Your task to perform on an android device: Go to calendar. Show me events next week Image 0: 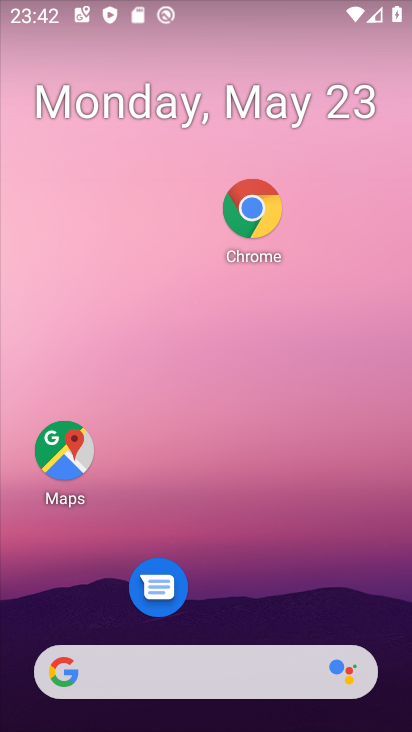
Step 0: click (294, 503)
Your task to perform on an android device: Go to calendar. Show me events next week Image 1: 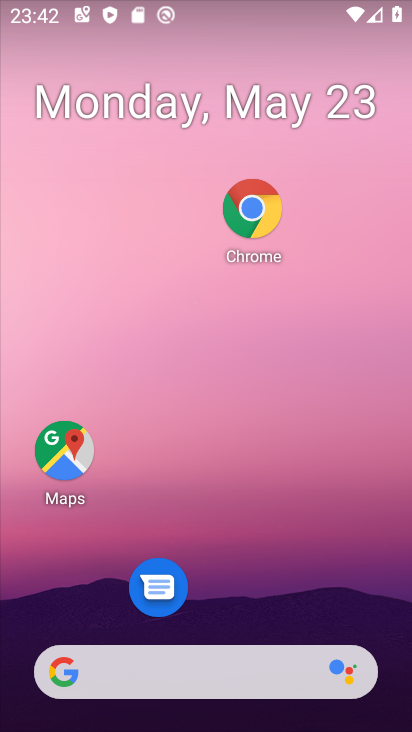
Step 1: drag from (271, 703) to (199, 166)
Your task to perform on an android device: Go to calendar. Show me events next week Image 2: 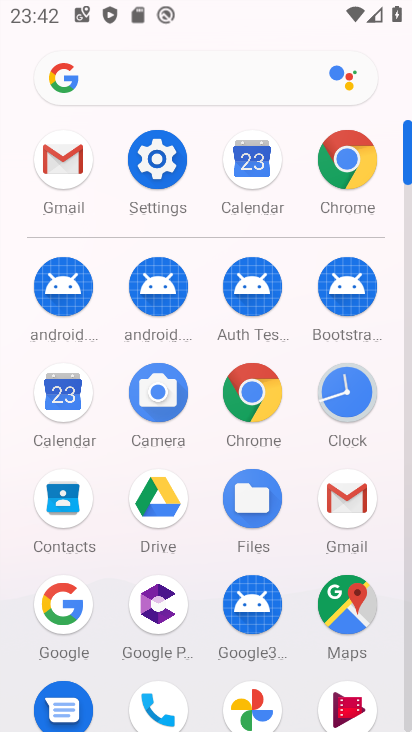
Step 2: click (42, 396)
Your task to perform on an android device: Go to calendar. Show me events next week Image 3: 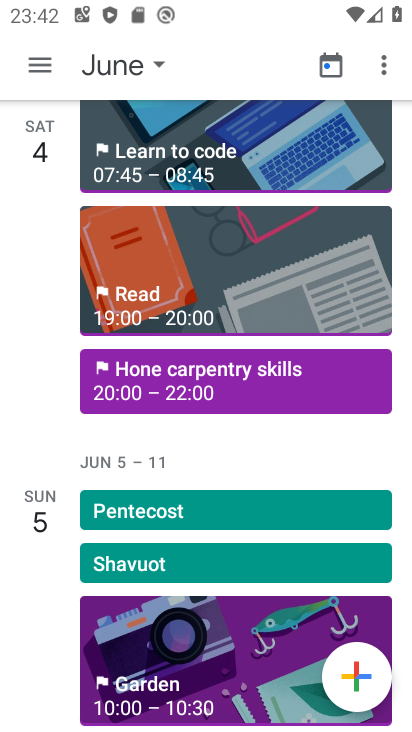
Step 3: drag from (138, 154) to (138, 617)
Your task to perform on an android device: Go to calendar. Show me events next week Image 4: 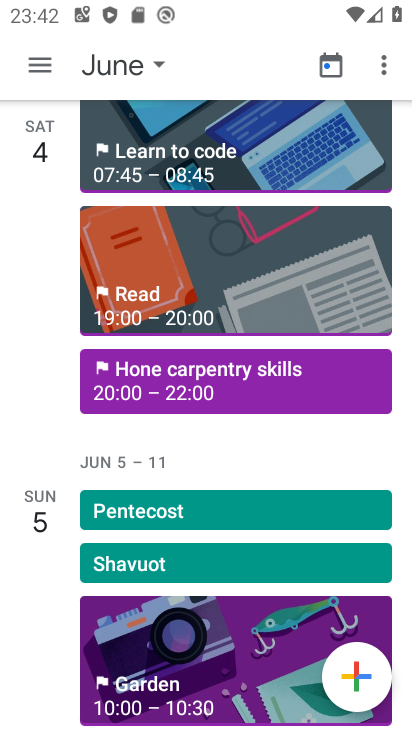
Step 4: click (162, 60)
Your task to perform on an android device: Go to calendar. Show me events next week Image 5: 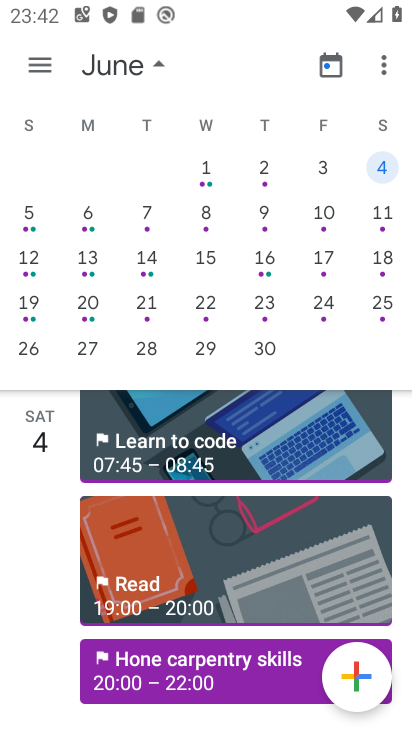
Step 5: drag from (383, 263) to (381, 324)
Your task to perform on an android device: Go to calendar. Show me events next week Image 6: 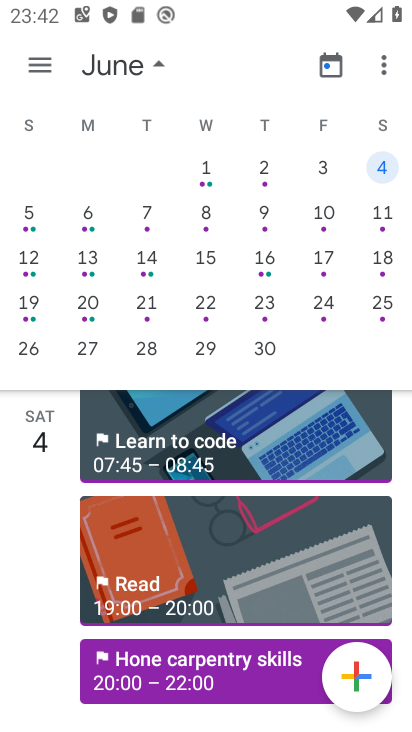
Step 6: drag from (151, 251) to (381, 384)
Your task to perform on an android device: Go to calendar. Show me events next week Image 7: 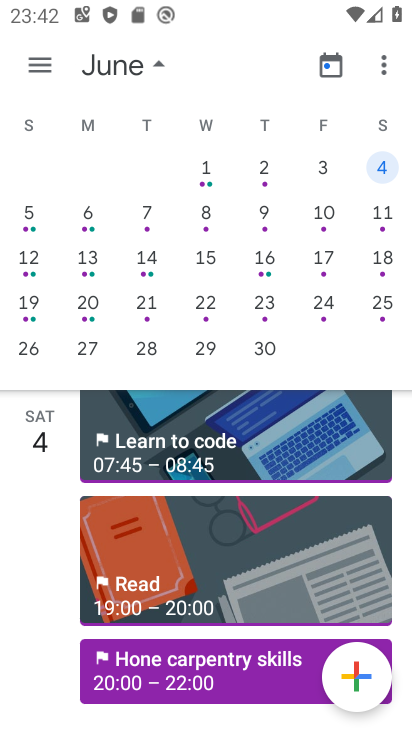
Step 7: drag from (240, 267) to (382, 213)
Your task to perform on an android device: Go to calendar. Show me events next week Image 8: 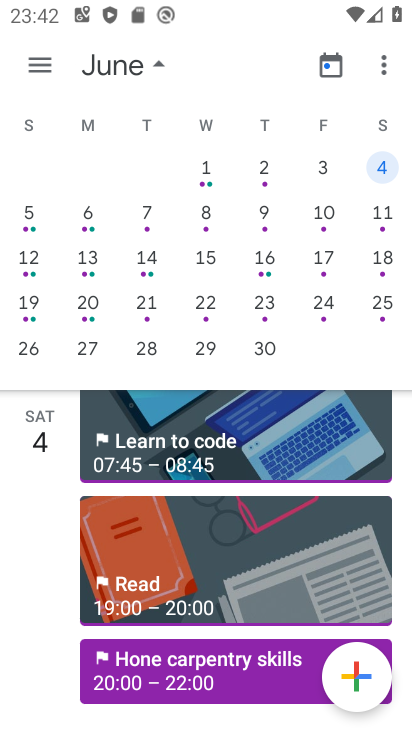
Step 8: drag from (164, 238) to (320, 302)
Your task to perform on an android device: Go to calendar. Show me events next week Image 9: 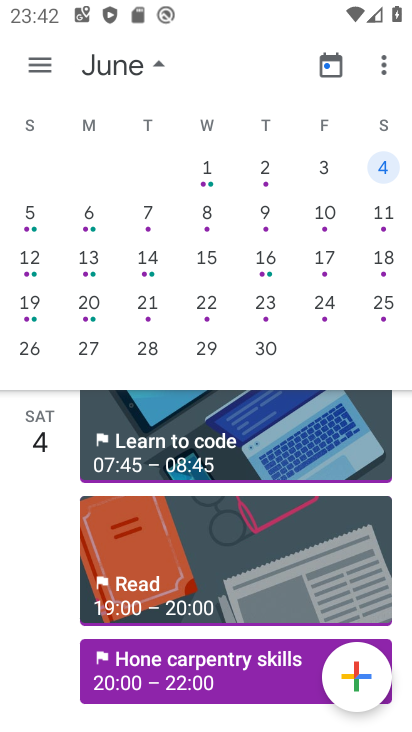
Step 9: drag from (169, 304) to (387, 269)
Your task to perform on an android device: Go to calendar. Show me events next week Image 10: 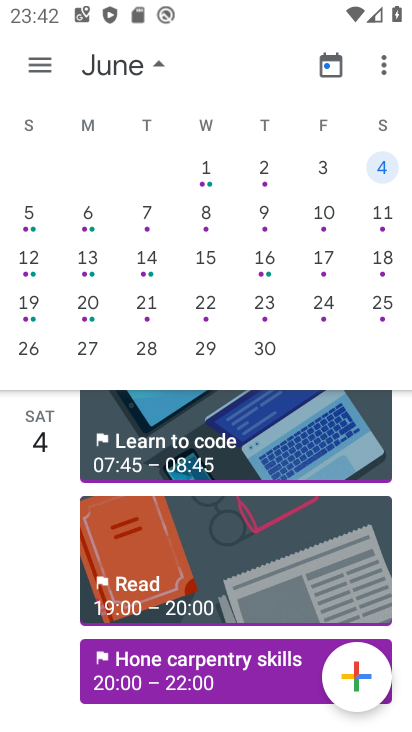
Step 10: drag from (69, 283) to (386, 273)
Your task to perform on an android device: Go to calendar. Show me events next week Image 11: 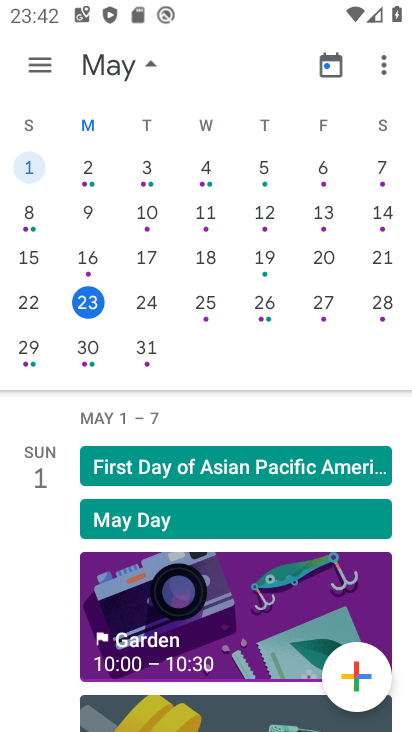
Step 11: click (143, 334)
Your task to perform on an android device: Go to calendar. Show me events next week Image 12: 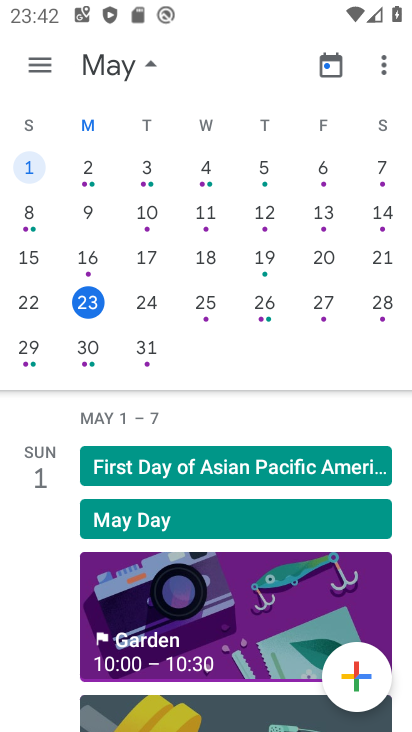
Step 12: click (144, 336)
Your task to perform on an android device: Go to calendar. Show me events next week Image 13: 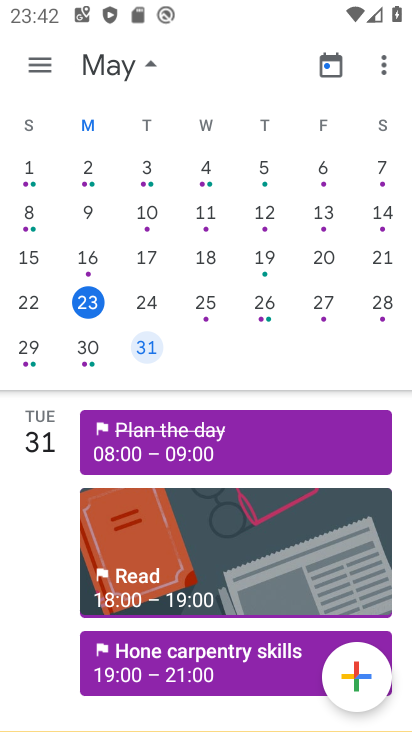
Step 13: click (147, 352)
Your task to perform on an android device: Go to calendar. Show me events next week Image 14: 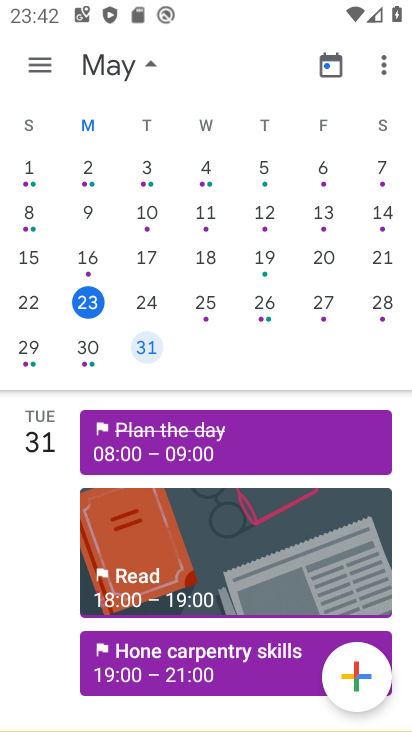
Step 14: click (148, 353)
Your task to perform on an android device: Go to calendar. Show me events next week Image 15: 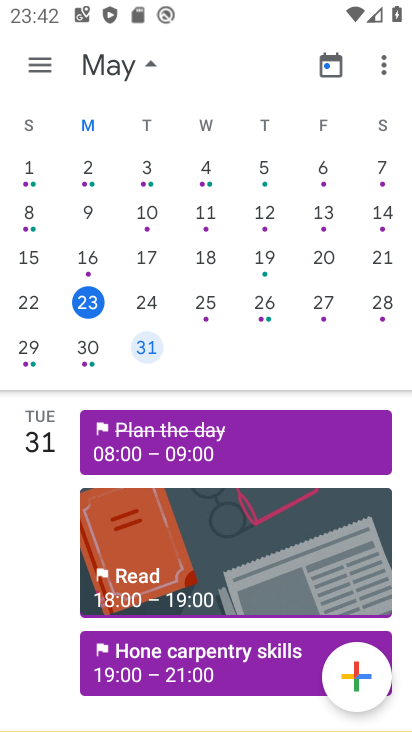
Step 15: task complete